Your task to perform on an android device: turn off notifications in google photos Image 0: 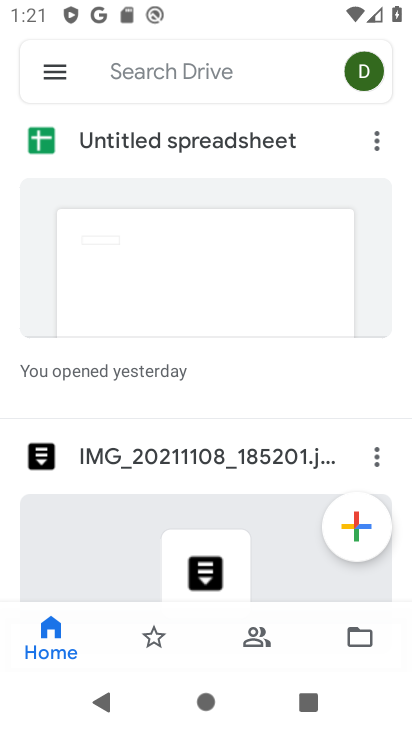
Step 0: press home button
Your task to perform on an android device: turn off notifications in google photos Image 1: 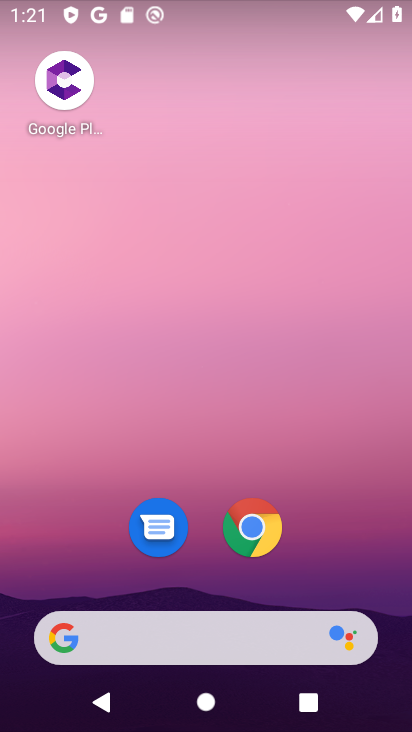
Step 1: drag from (132, 405) to (183, 104)
Your task to perform on an android device: turn off notifications in google photos Image 2: 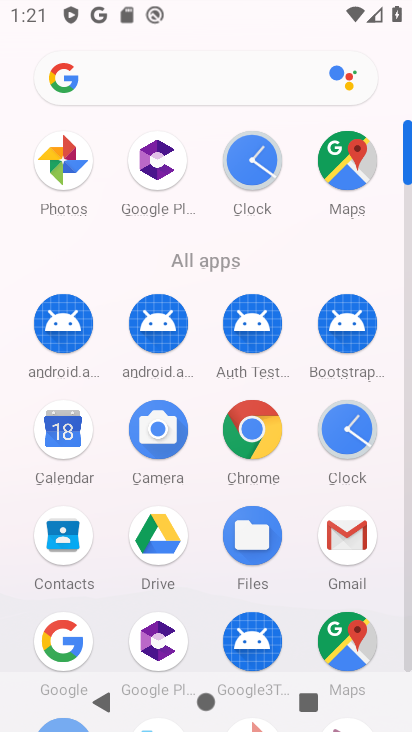
Step 2: drag from (139, 611) to (191, 354)
Your task to perform on an android device: turn off notifications in google photos Image 3: 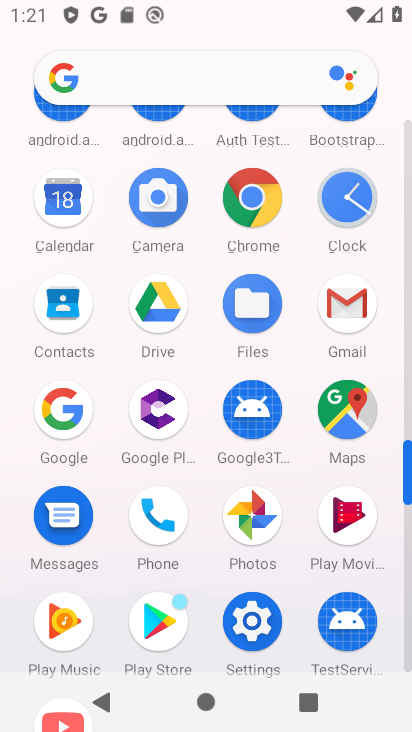
Step 3: click (255, 516)
Your task to perform on an android device: turn off notifications in google photos Image 4: 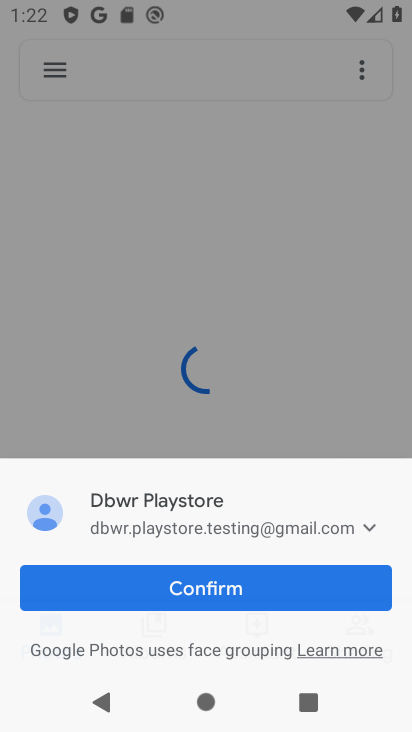
Step 4: click (57, 74)
Your task to perform on an android device: turn off notifications in google photos Image 5: 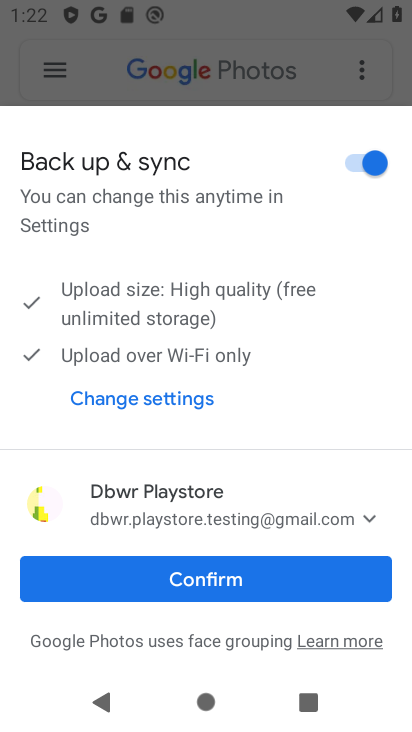
Step 5: click (228, 586)
Your task to perform on an android device: turn off notifications in google photos Image 6: 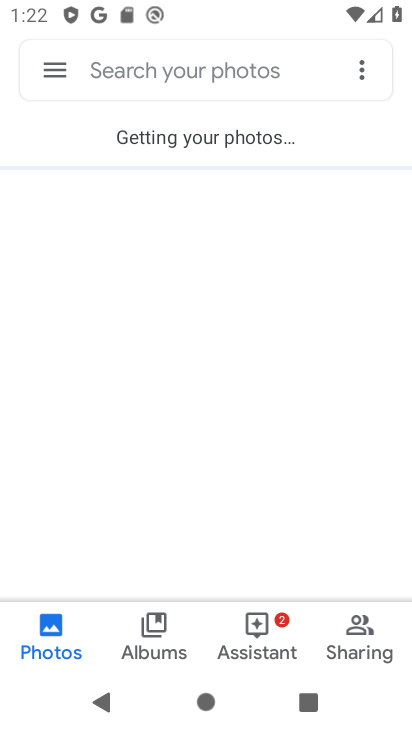
Step 6: click (64, 67)
Your task to perform on an android device: turn off notifications in google photos Image 7: 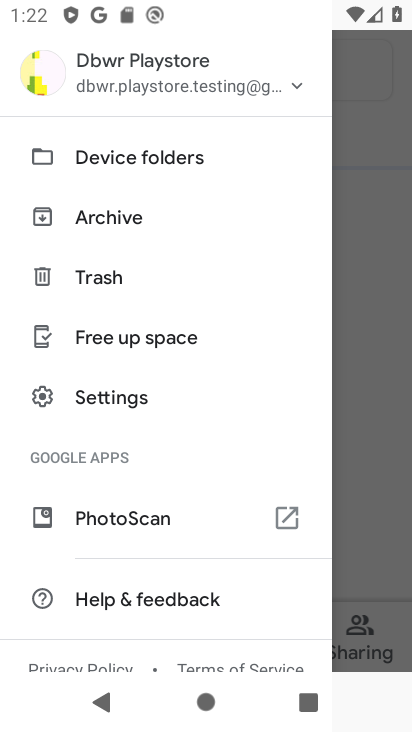
Step 7: drag from (140, 615) to (201, 258)
Your task to perform on an android device: turn off notifications in google photos Image 8: 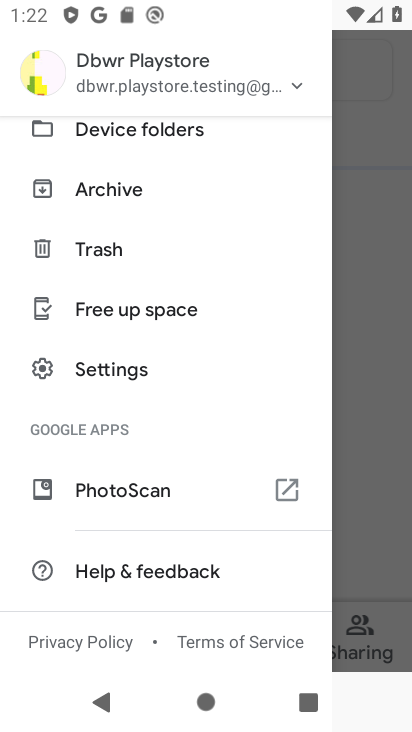
Step 8: click (154, 385)
Your task to perform on an android device: turn off notifications in google photos Image 9: 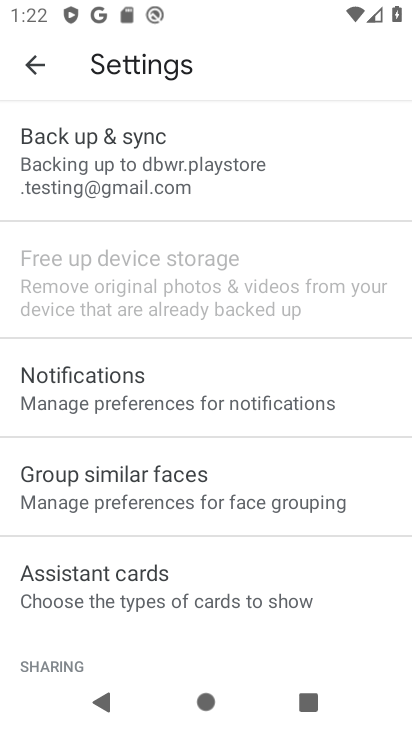
Step 9: click (161, 415)
Your task to perform on an android device: turn off notifications in google photos Image 10: 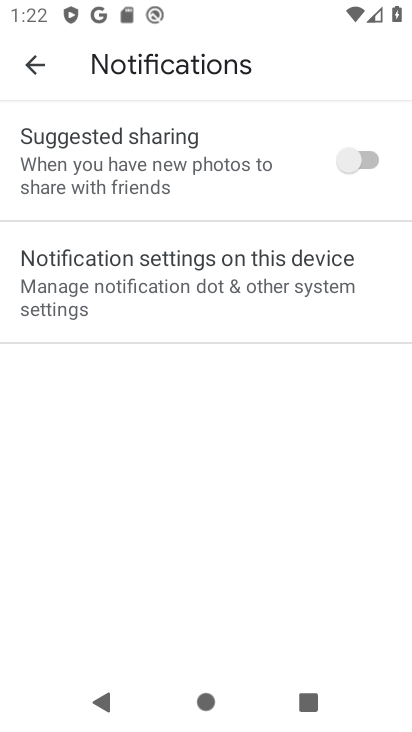
Step 10: click (288, 289)
Your task to perform on an android device: turn off notifications in google photos Image 11: 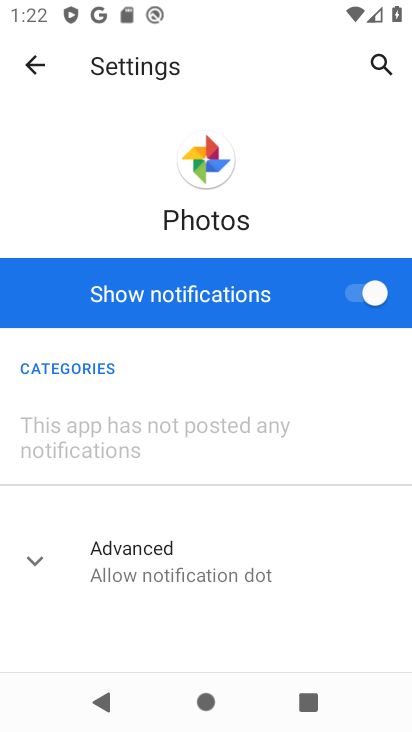
Step 11: click (338, 292)
Your task to perform on an android device: turn off notifications in google photos Image 12: 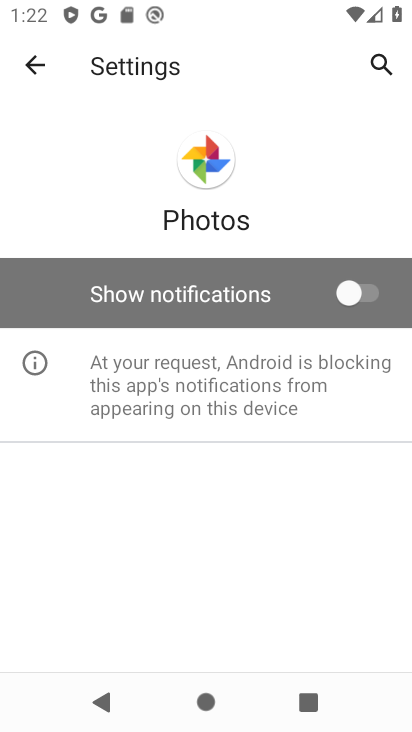
Step 12: task complete